Your task to perform on an android device: turn smart compose on in the gmail app Image 0: 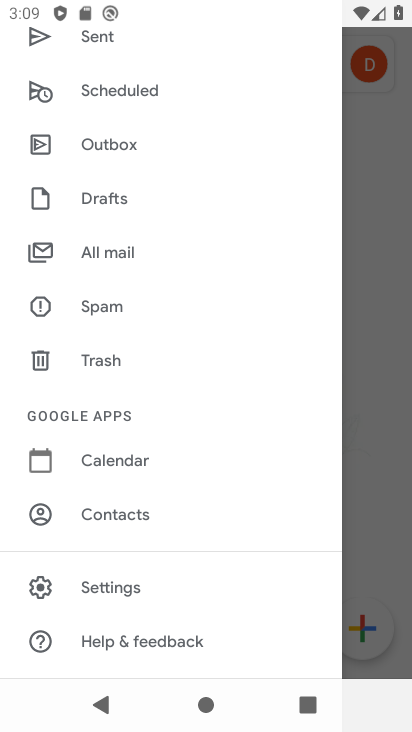
Step 0: press home button
Your task to perform on an android device: turn smart compose on in the gmail app Image 1: 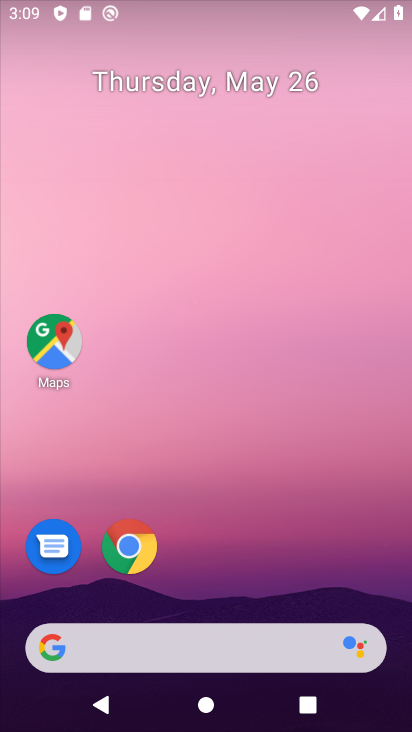
Step 1: drag from (306, 548) to (187, 0)
Your task to perform on an android device: turn smart compose on in the gmail app Image 2: 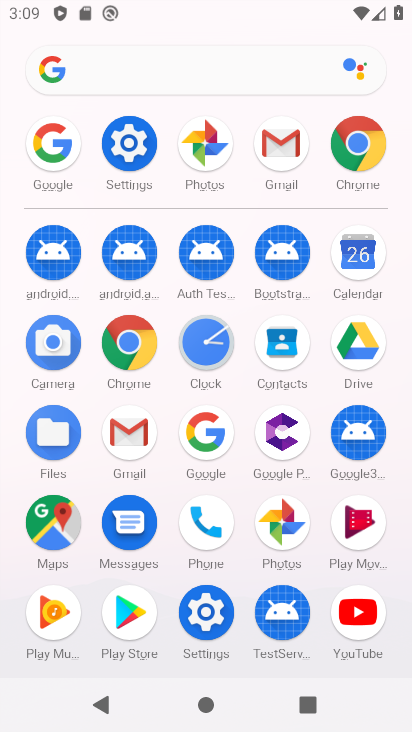
Step 2: click (285, 148)
Your task to perform on an android device: turn smart compose on in the gmail app Image 3: 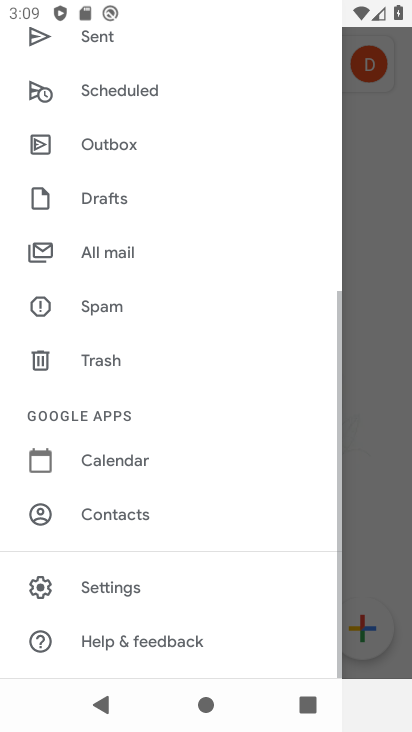
Step 3: drag from (108, 588) to (117, 523)
Your task to perform on an android device: turn smart compose on in the gmail app Image 4: 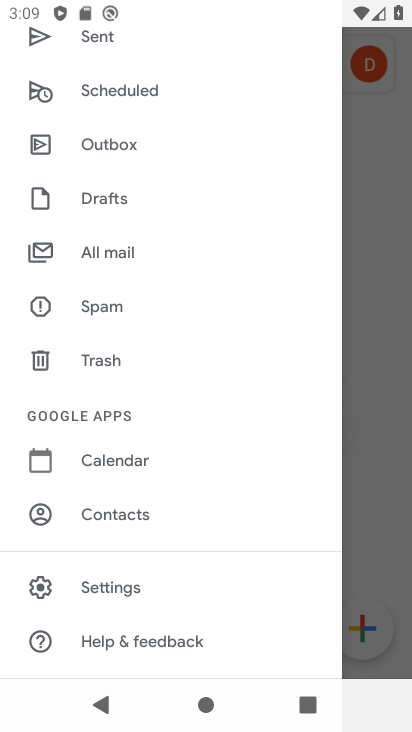
Step 4: click (119, 580)
Your task to perform on an android device: turn smart compose on in the gmail app Image 5: 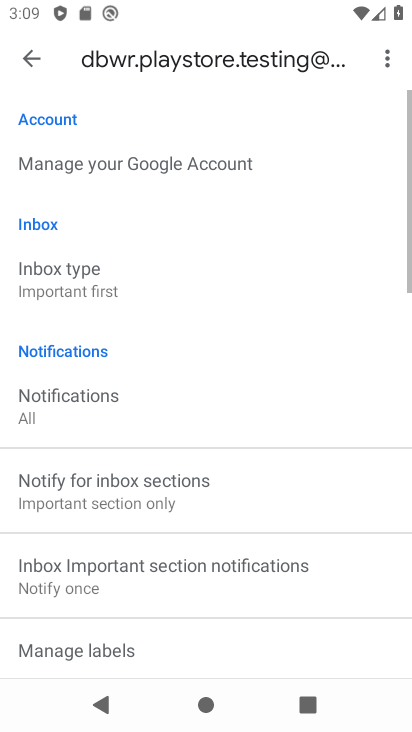
Step 5: task complete